Your task to perform on an android device: turn on showing notifications on the lock screen Image 0: 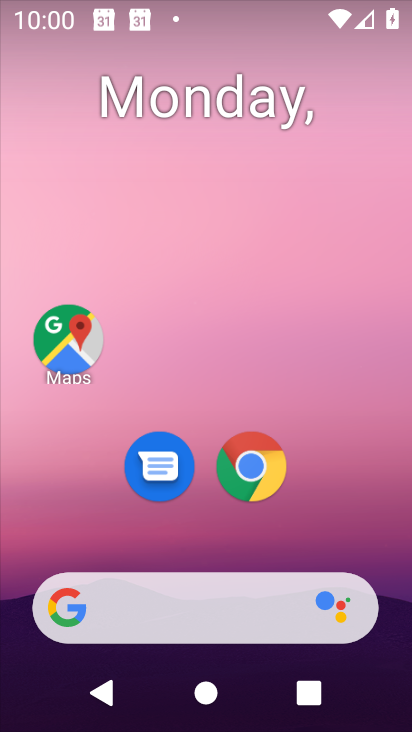
Step 0: drag from (379, 564) to (226, 123)
Your task to perform on an android device: turn on showing notifications on the lock screen Image 1: 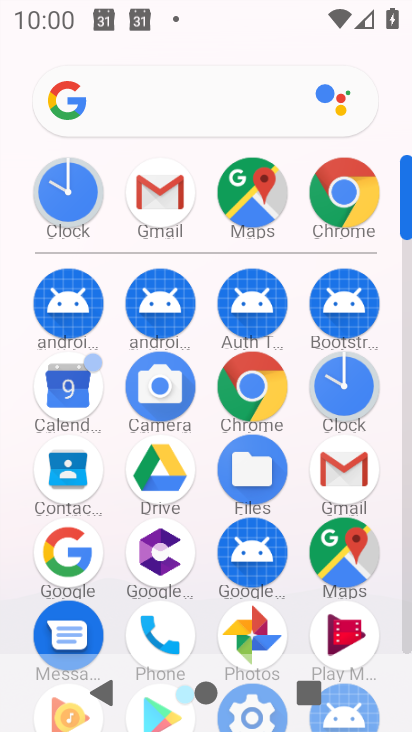
Step 1: drag from (280, 558) to (290, 301)
Your task to perform on an android device: turn on showing notifications on the lock screen Image 2: 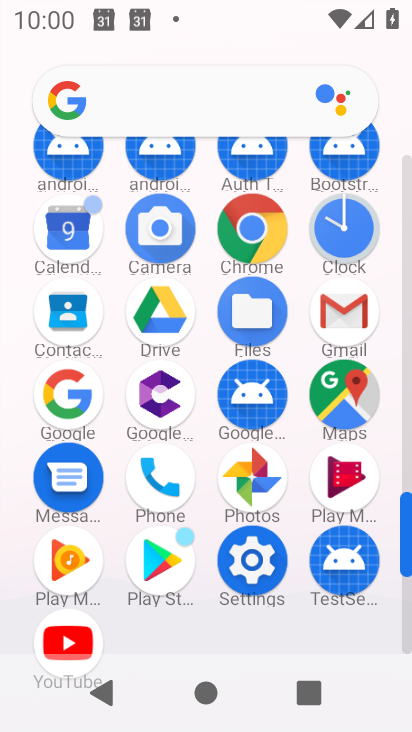
Step 2: drag from (283, 431) to (260, 142)
Your task to perform on an android device: turn on showing notifications on the lock screen Image 3: 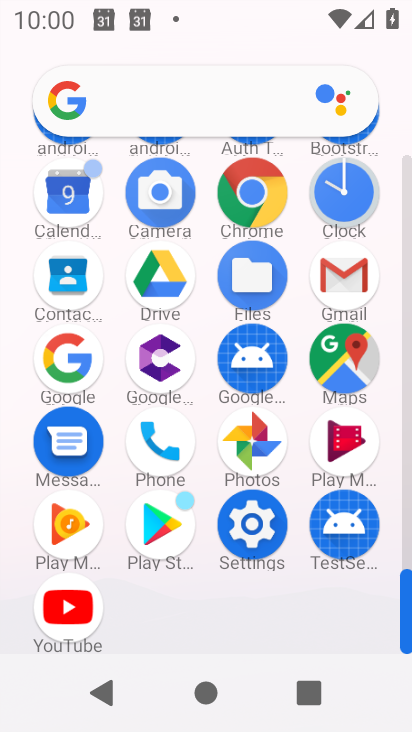
Step 3: click (232, 577)
Your task to perform on an android device: turn on showing notifications on the lock screen Image 4: 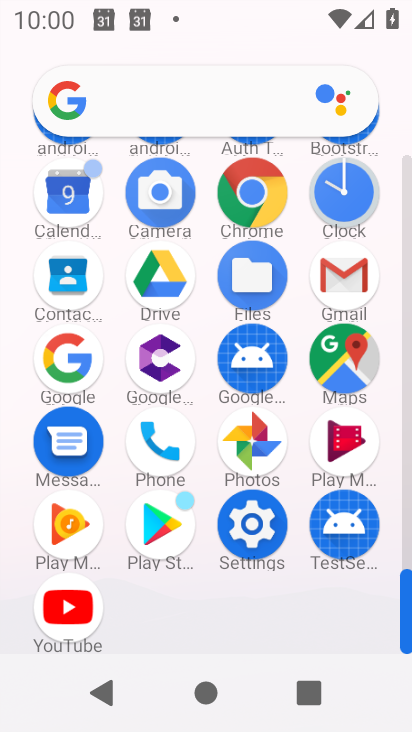
Step 4: click (260, 531)
Your task to perform on an android device: turn on showing notifications on the lock screen Image 5: 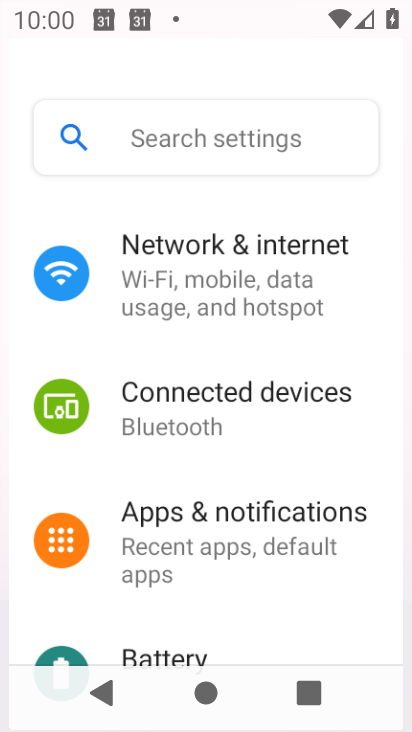
Step 5: click (259, 529)
Your task to perform on an android device: turn on showing notifications on the lock screen Image 6: 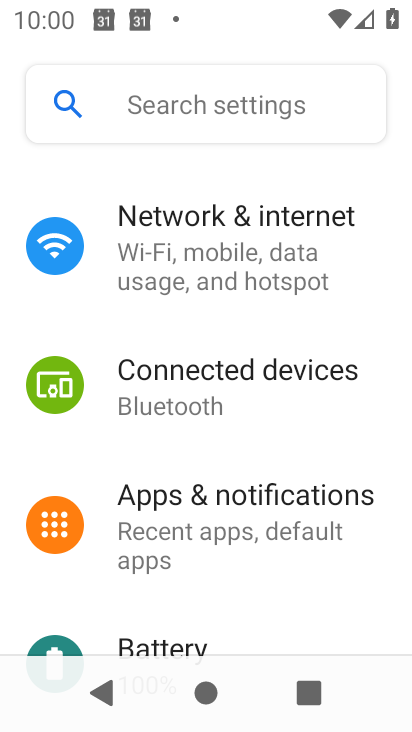
Step 6: click (259, 529)
Your task to perform on an android device: turn on showing notifications on the lock screen Image 7: 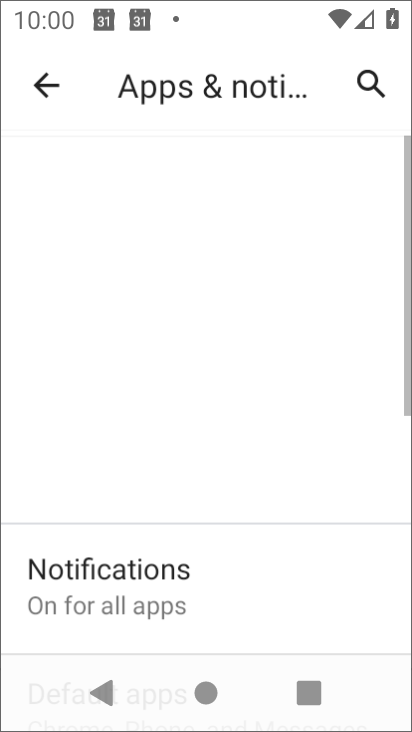
Step 7: click (239, 499)
Your task to perform on an android device: turn on showing notifications on the lock screen Image 8: 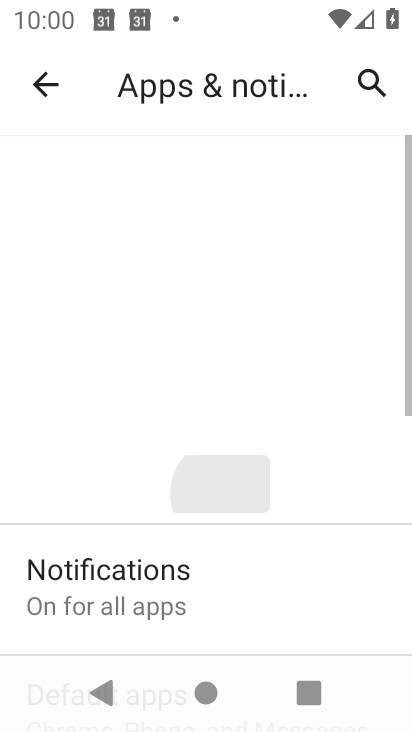
Step 8: click (239, 499)
Your task to perform on an android device: turn on showing notifications on the lock screen Image 9: 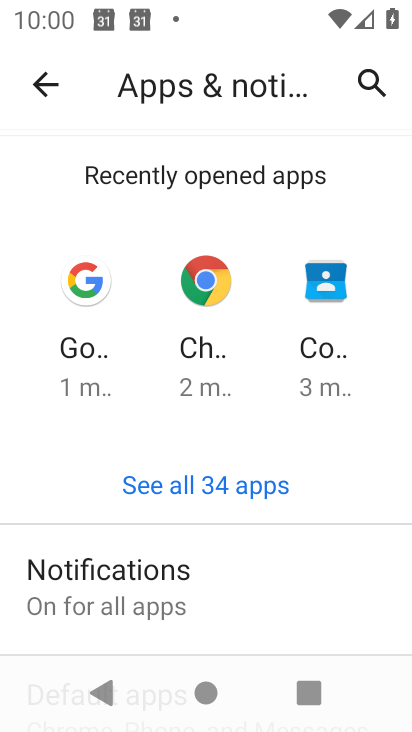
Step 9: click (140, 606)
Your task to perform on an android device: turn on showing notifications on the lock screen Image 10: 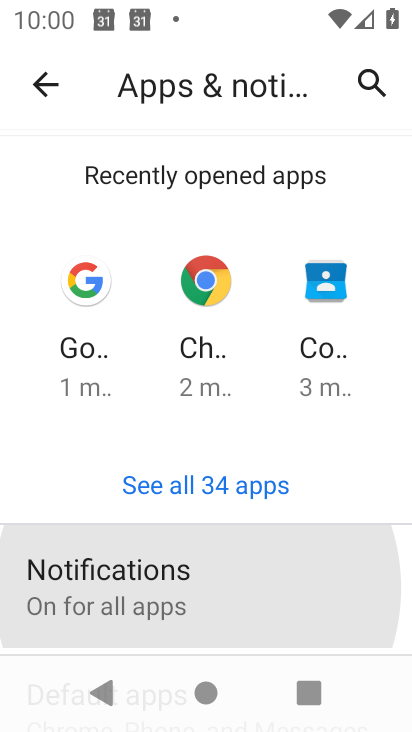
Step 10: click (137, 606)
Your task to perform on an android device: turn on showing notifications on the lock screen Image 11: 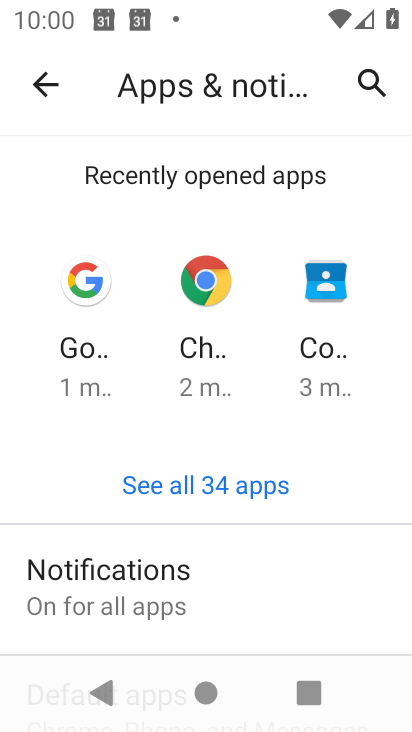
Step 11: click (124, 600)
Your task to perform on an android device: turn on showing notifications on the lock screen Image 12: 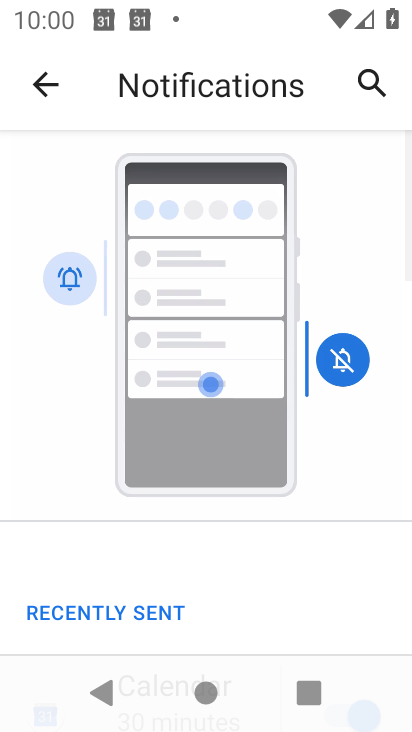
Step 12: drag from (197, 493) to (129, 206)
Your task to perform on an android device: turn on showing notifications on the lock screen Image 13: 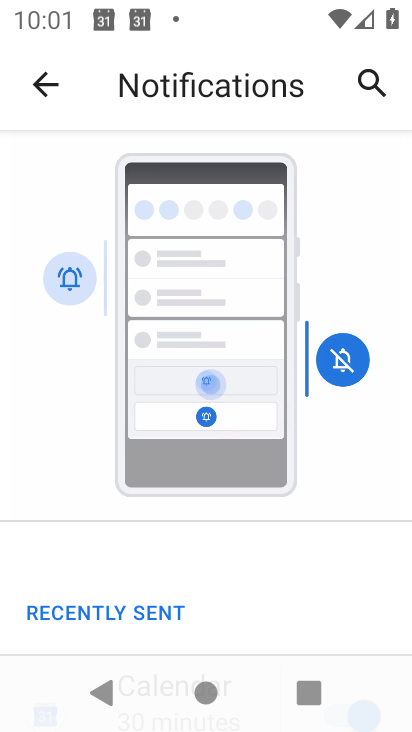
Step 13: drag from (208, 417) to (178, 60)
Your task to perform on an android device: turn on showing notifications on the lock screen Image 14: 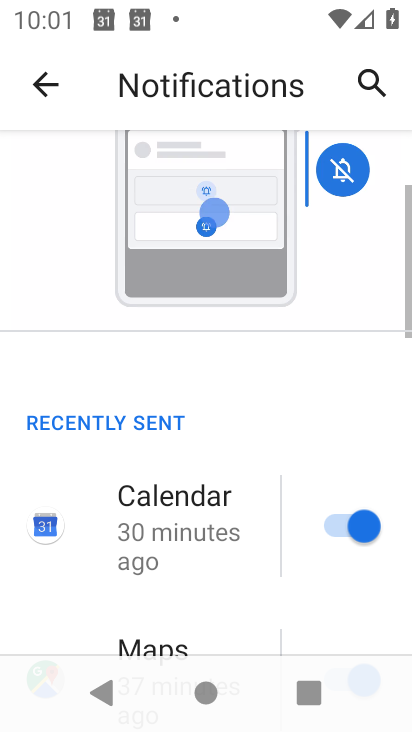
Step 14: drag from (213, 364) to (212, 89)
Your task to perform on an android device: turn on showing notifications on the lock screen Image 15: 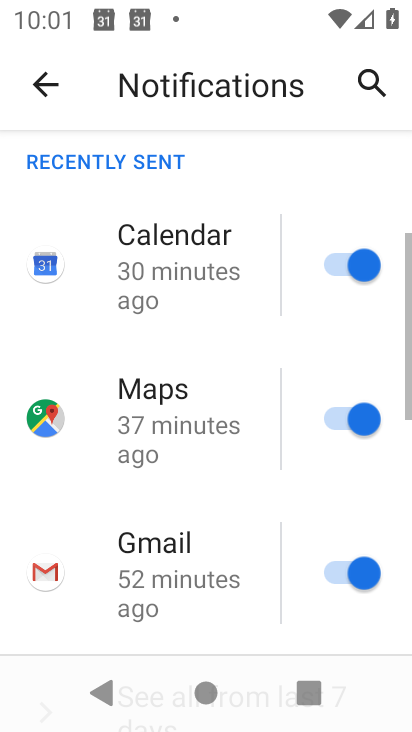
Step 15: drag from (223, 518) to (223, 224)
Your task to perform on an android device: turn on showing notifications on the lock screen Image 16: 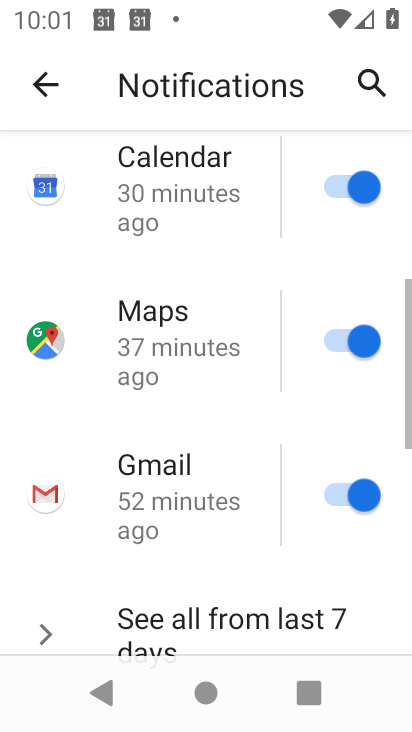
Step 16: drag from (248, 505) to (189, 127)
Your task to perform on an android device: turn on showing notifications on the lock screen Image 17: 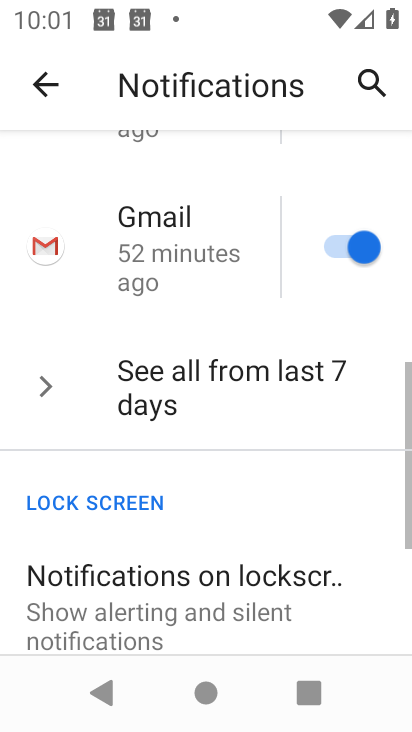
Step 17: drag from (228, 448) to (233, 87)
Your task to perform on an android device: turn on showing notifications on the lock screen Image 18: 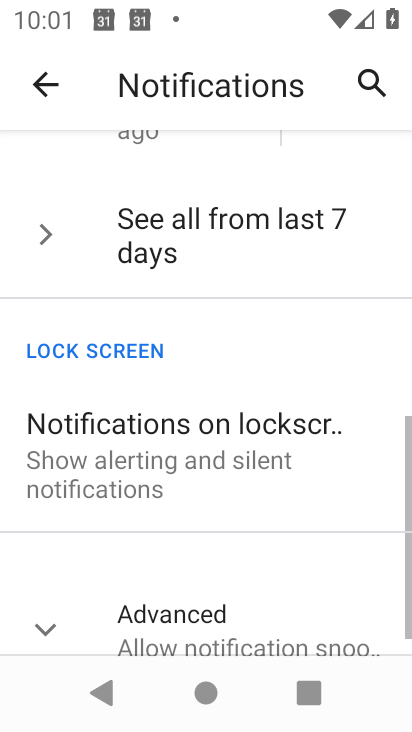
Step 18: drag from (189, 511) to (167, 236)
Your task to perform on an android device: turn on showing notifications on the lock screen Image 19: 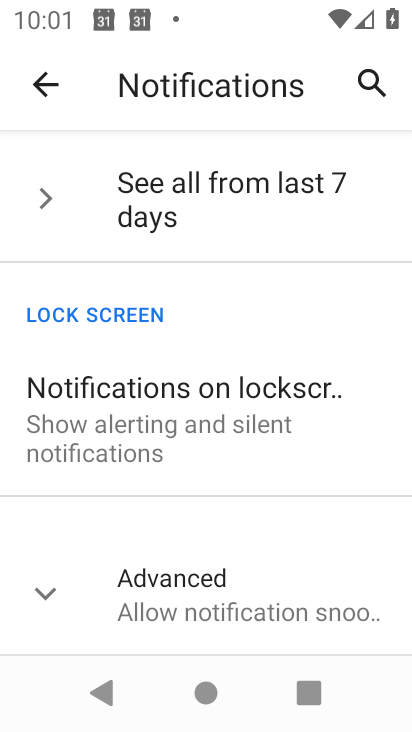
Step 19: click (150, 408)
Your task to perform on an android device: turn on showing notifications on the lock screen Image 20: 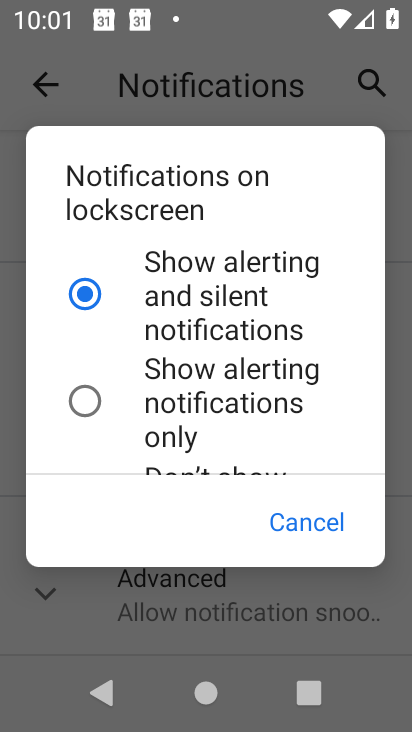
Step 20: task complete